Your task to perform on an android device: Open sound settings Image 0: 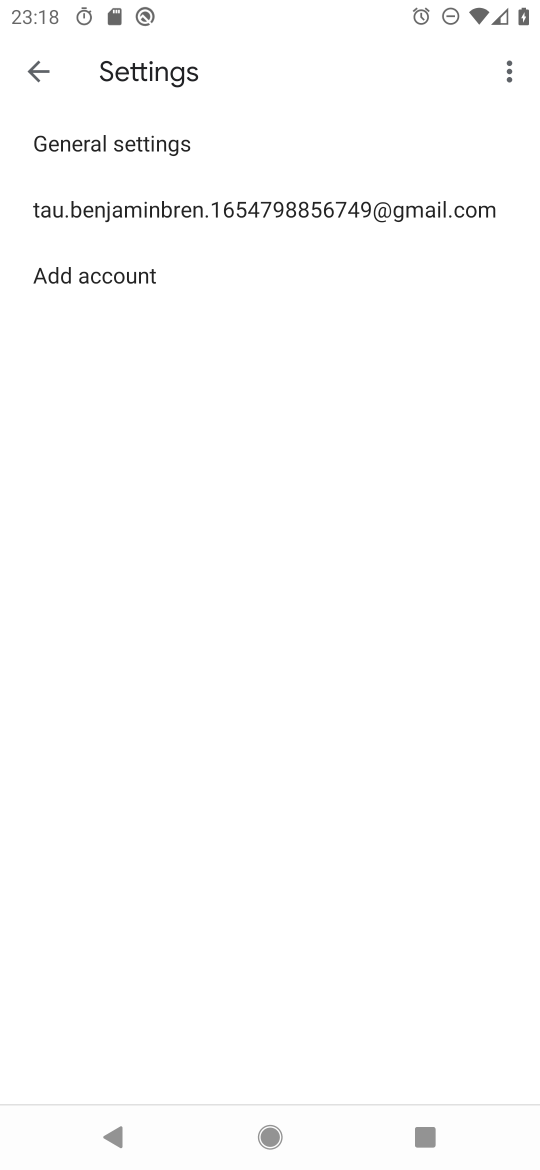
Step 0: press home button
Your task to perform on an android device: Open sound settings Image 1: 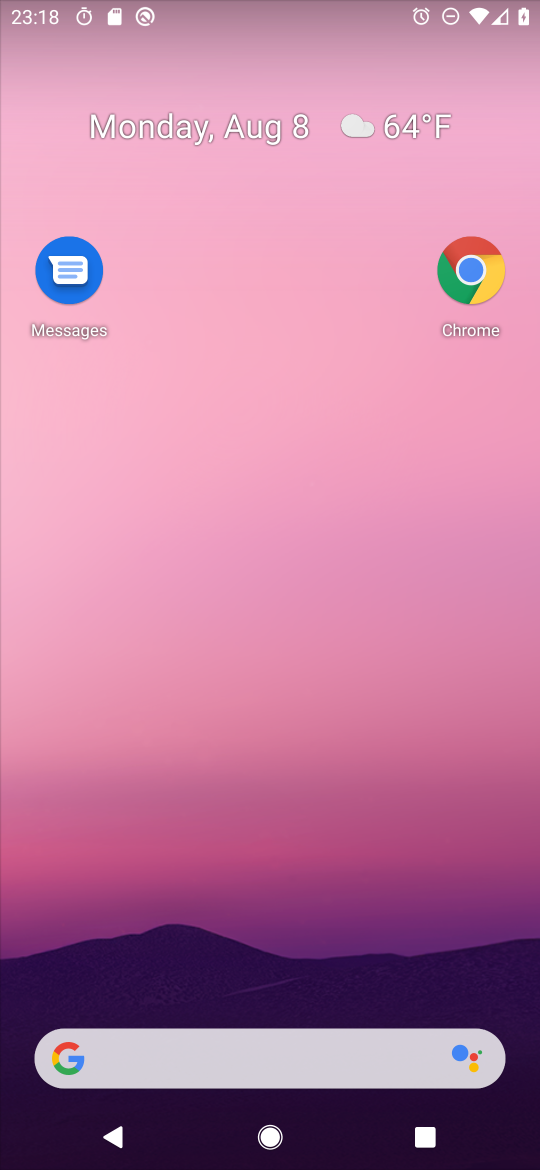
Step 1: drag from (226, 882) to (349, 0)
Your task to perform on an android device: Open sound settings Image 2: 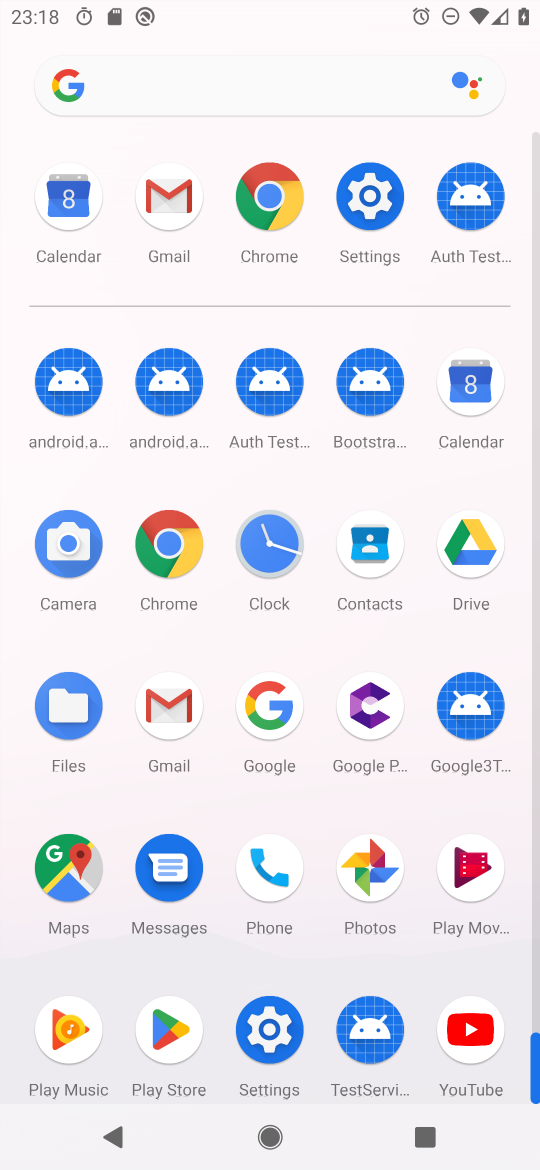
Step 2: click (261, 1008)
Your task to perform on an android device: Open sound settings Image 3: 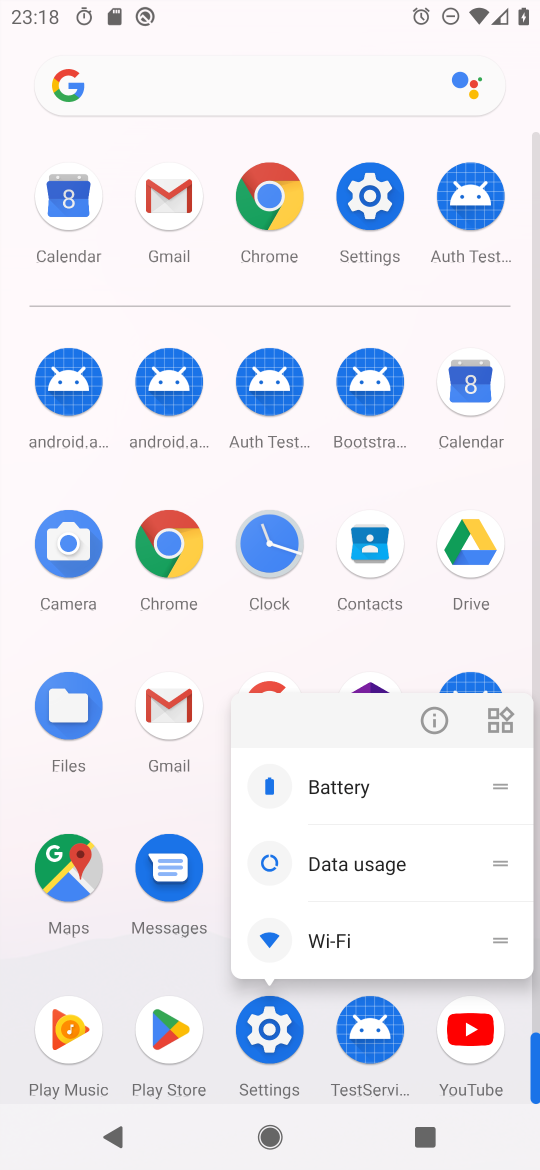
Step 3: click (440, 711)
Your task to perform on an android device: Open sound settings Image 4: 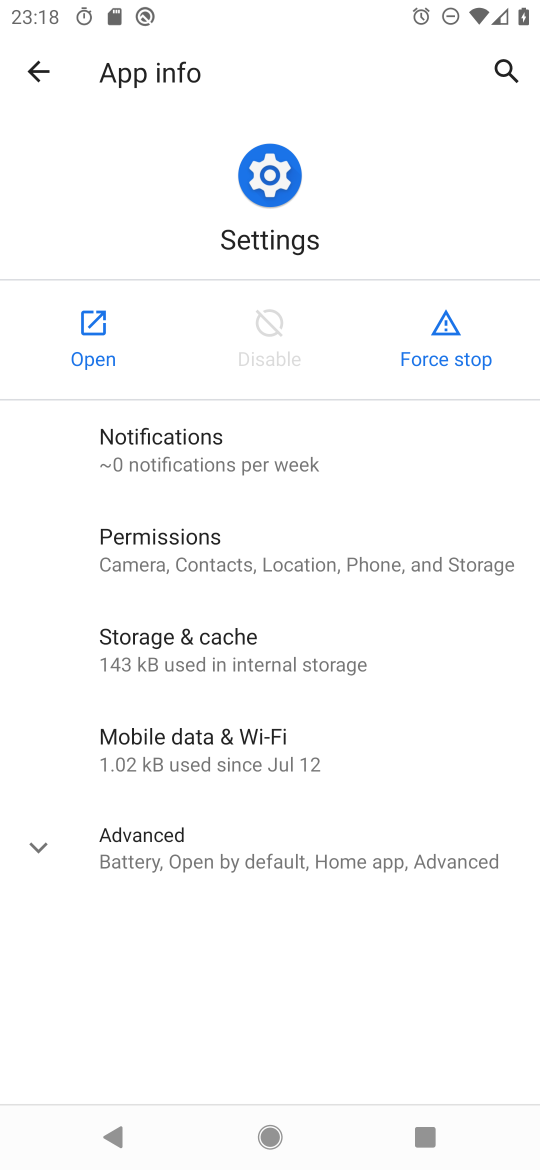
Step 4: click (60, 342)
Your task to perform on an android device: Open sound settings Image 5: 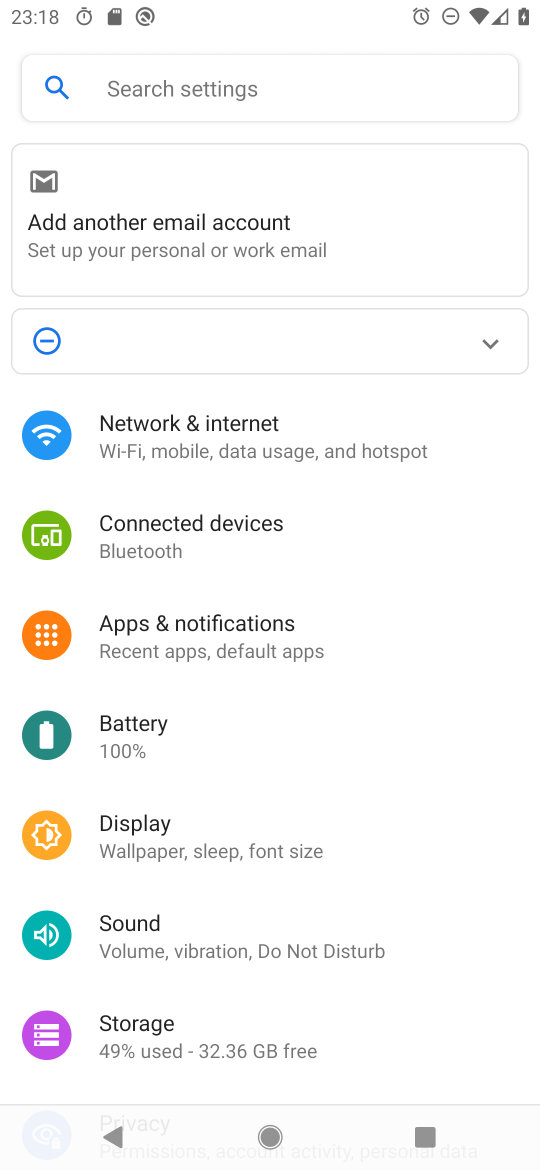
Step 5: click (108, 935)
Your task to perform on an android device: Open sound settings Image 6: 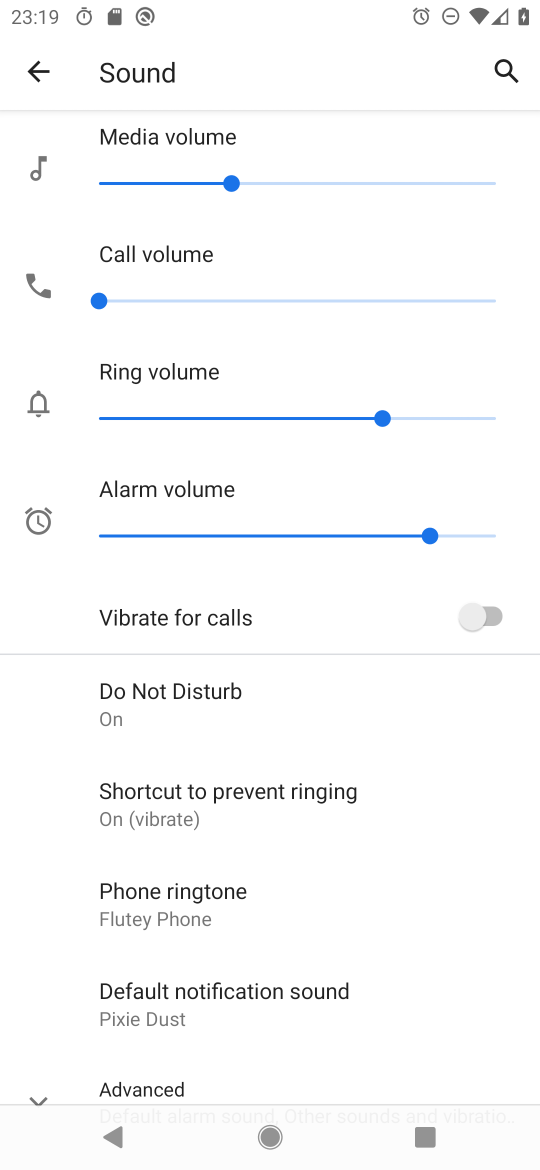
Step 6: task complete